Your task to perform on an android device: Go to notification settings Image 0: 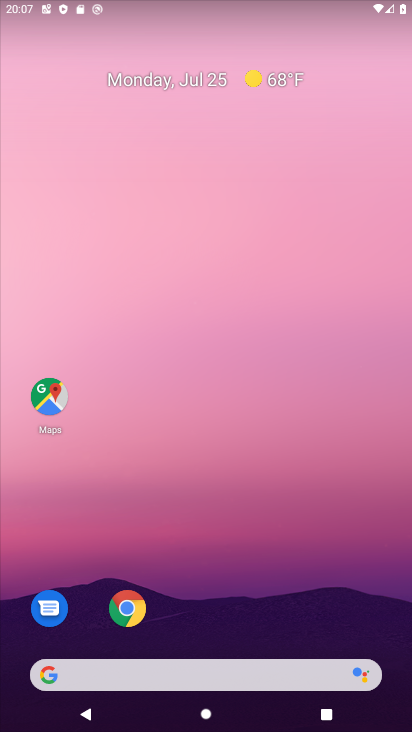
Step 0: drag from (217, 622) to (228, 19)
Your task to perform on an android device: Go to notification settings Image 1: 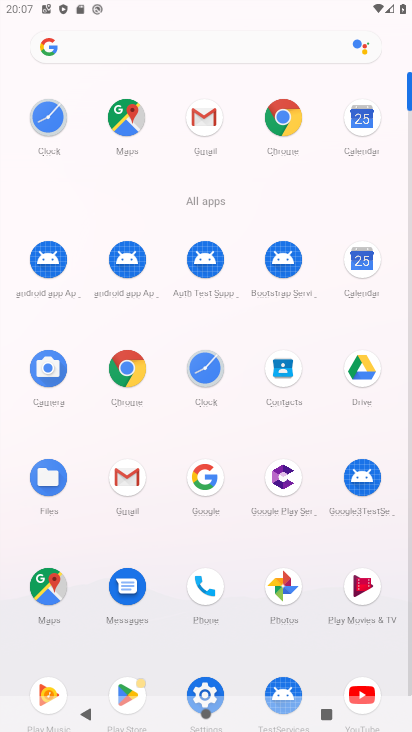
Step 1: click (212, 682)
Your task to perform on an android device: Go to notification settings Image 2: 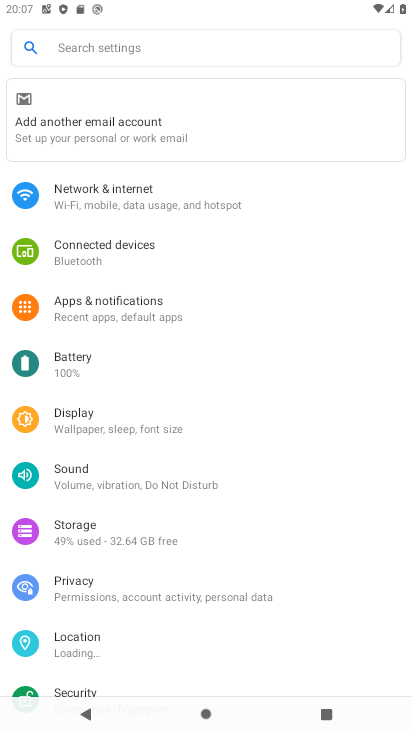
Step 2: click (100, 307)
Your task to perform on an android device: Go to notification settings Image 3: 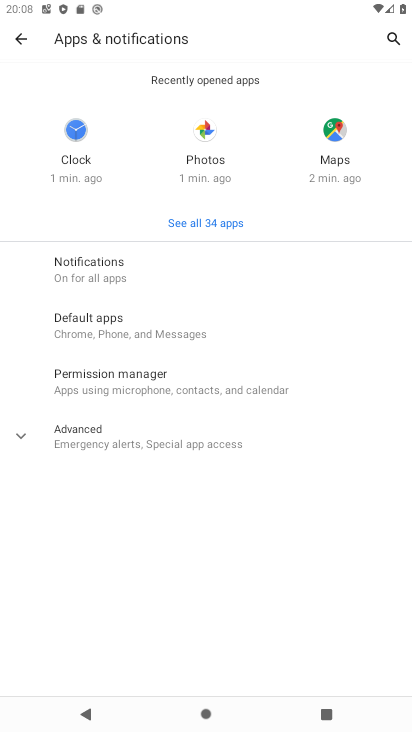
Step 3: click (78, 273)
Your task to perform on an android device: Go to notification settings Image 4: 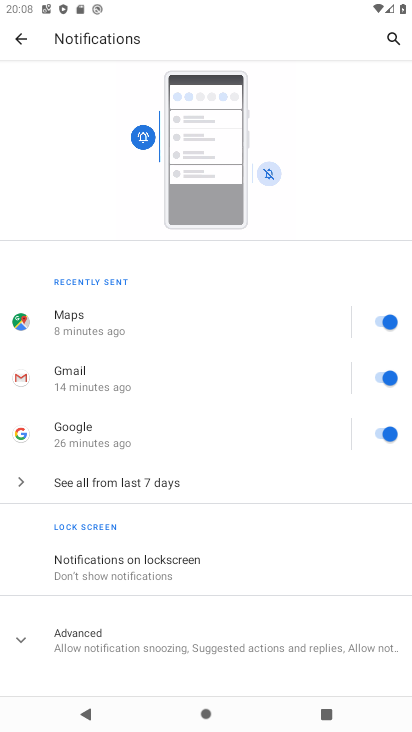
Step 4: task complete